Your task to perform on an android device: Open location settings Image 0: 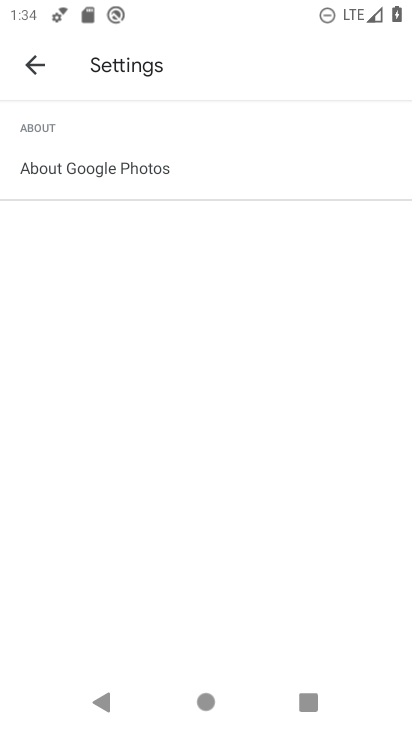
Step 0: press home button
Your task to perform on an android device: Open location settings Image 1: 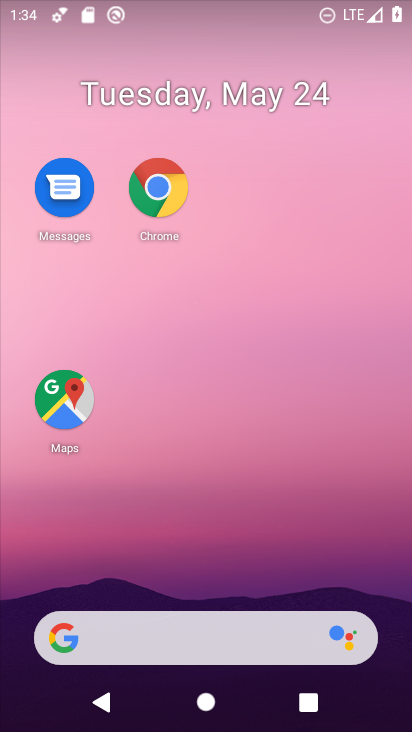
Step 1: drag from (171, 567) to (199, 21)
Your task to perform on an android device: Open location settings Image 2: 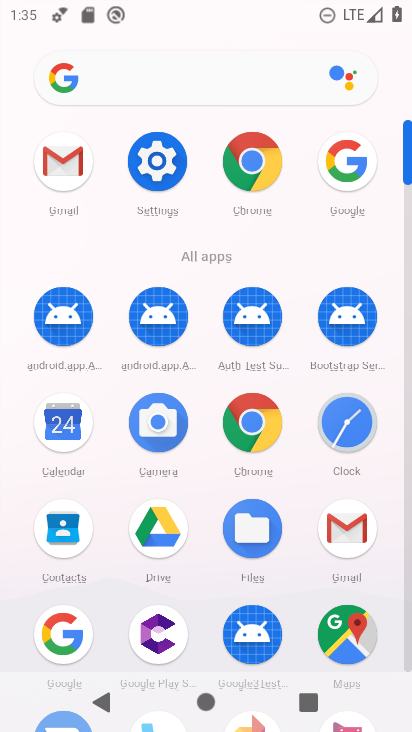
Step 2: click (180, 173)
Your task to perform on an android device: Open location settings Image 3: 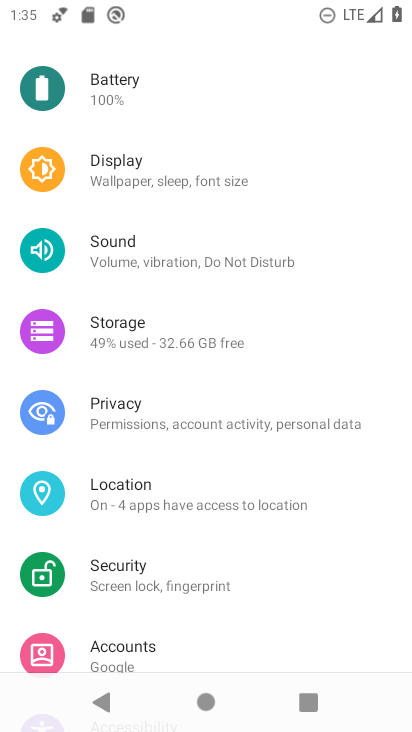
Step 3: click (117, 529)
Your task to perform on an android device: Open location settings Image 4: 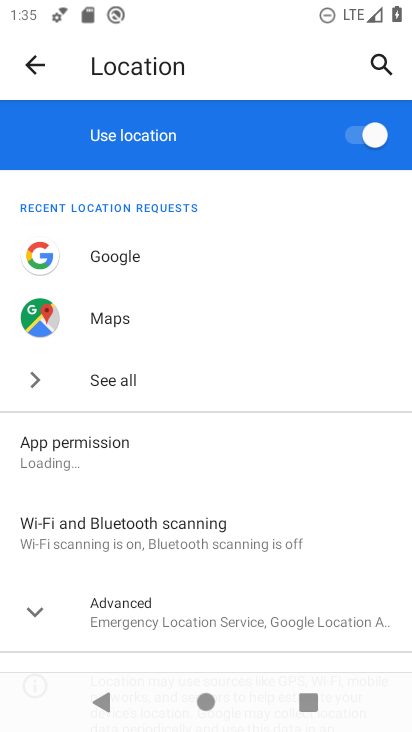
Step 4: task complete